Your task to perform on an android device: Open Reddit.com Image 0: 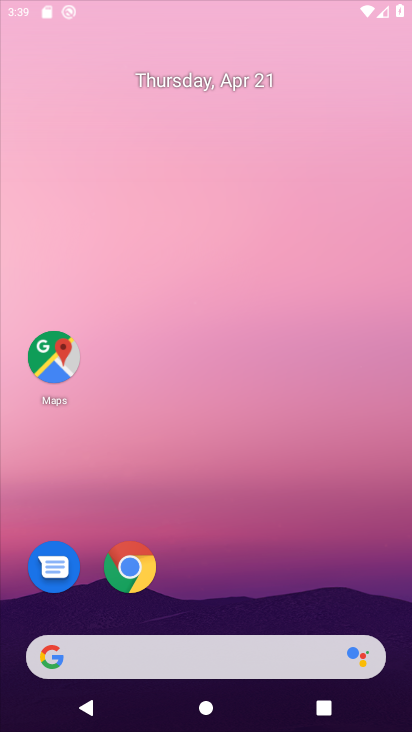
Step 0: drag from (277, 0) to (191, 0)
Your task to perform on an android device: Open Reddit.com Image 1: 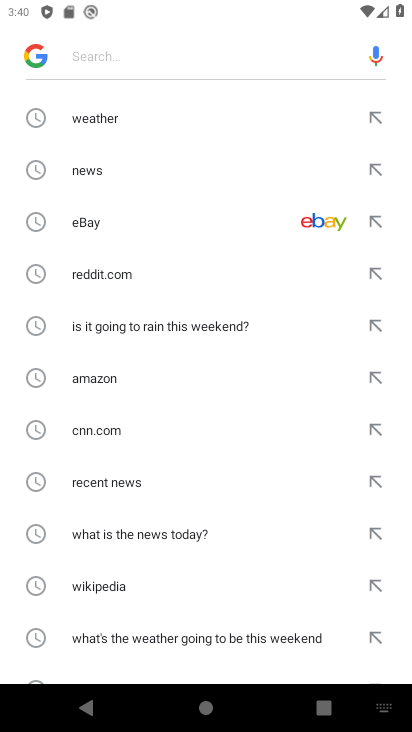
Step 1: type "reddit"
Your task to perform on an android device: Open Reddit.com Image 2: 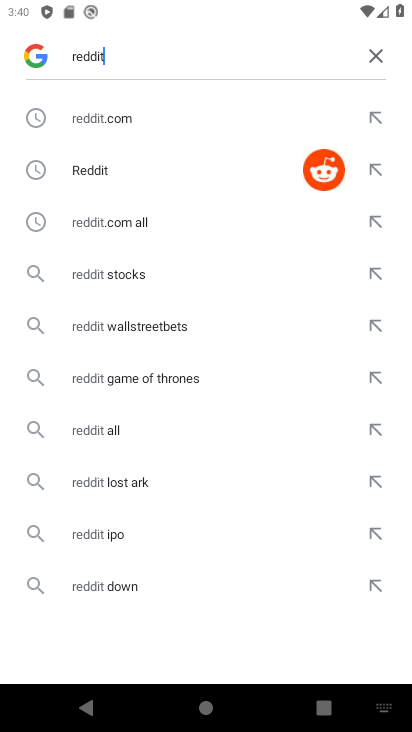
Step 2: click (165, 121)
Your task to perform on an android device: Open Reddit.com Image 3: 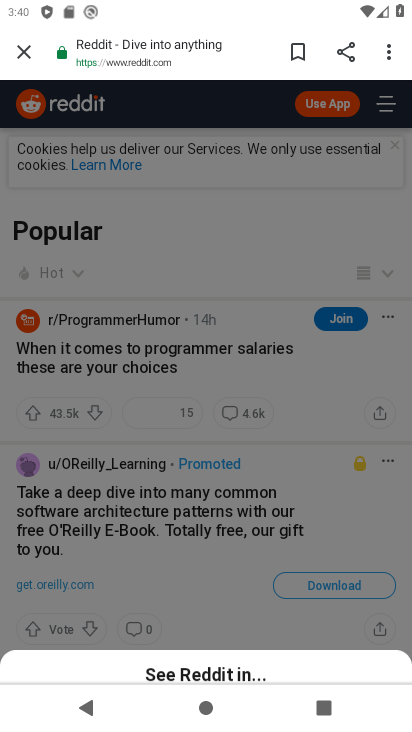
Step 3: task complete